Your task to perform on an android device: Search for pizza restaurants on Maps Image 0: 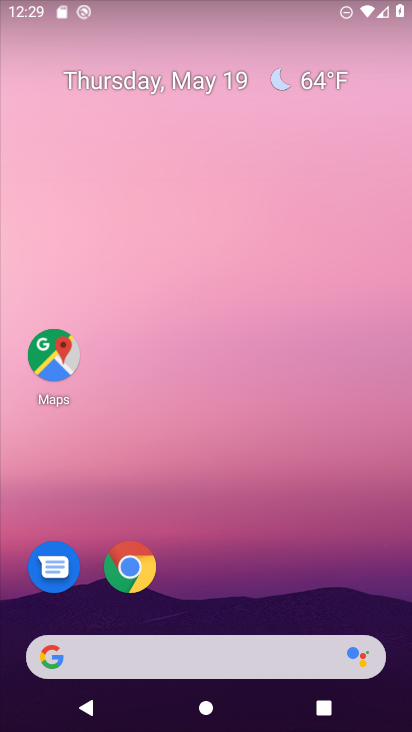
Step 0: click (44, 360)
Your task to perform on an android device: Search for pizza restaurants on Maps Image 1: 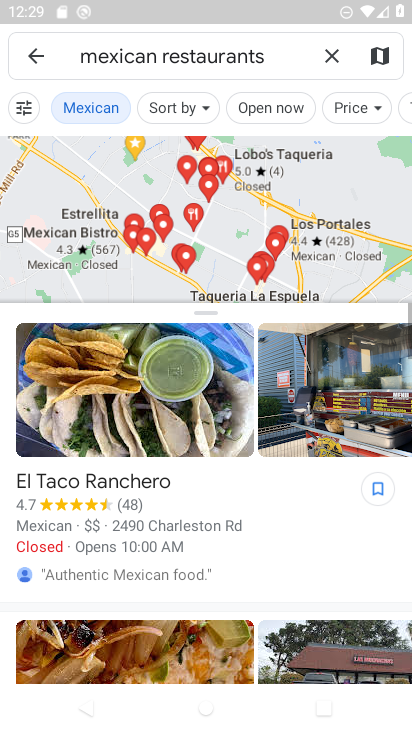
Step 1: click (329, 58)
Your task to perform on an android device: Search for pizza restaurants on Maps Image 2: 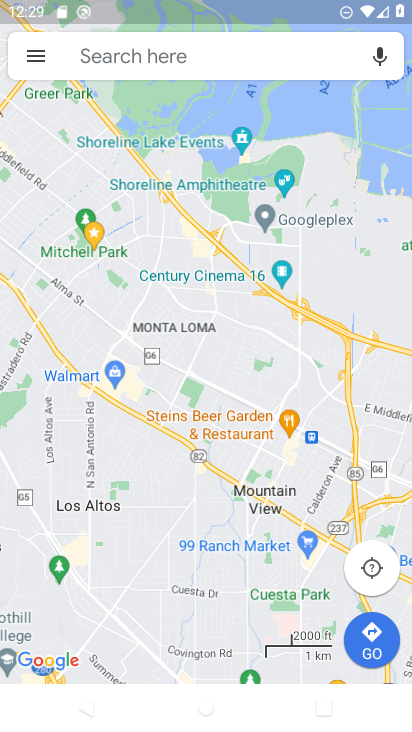
Step 2: click (240, 58)
Your task to perform on an android device: Search for pizza restaurants on Maps Image 3: 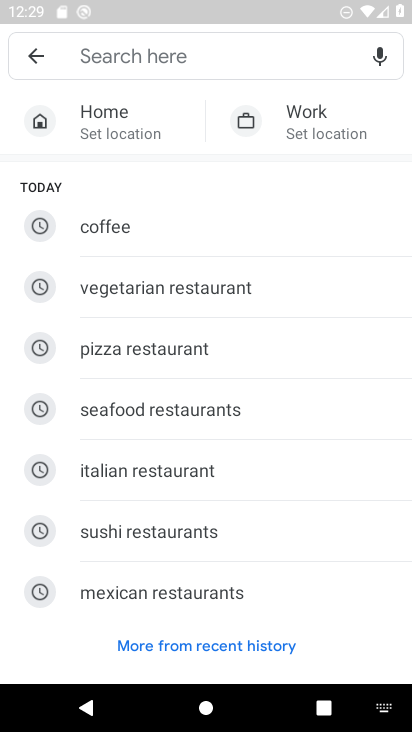
Step 3: click (133, 349)
Your task to perform on an android device: Search for pizza restaurants on Maps Image 4: 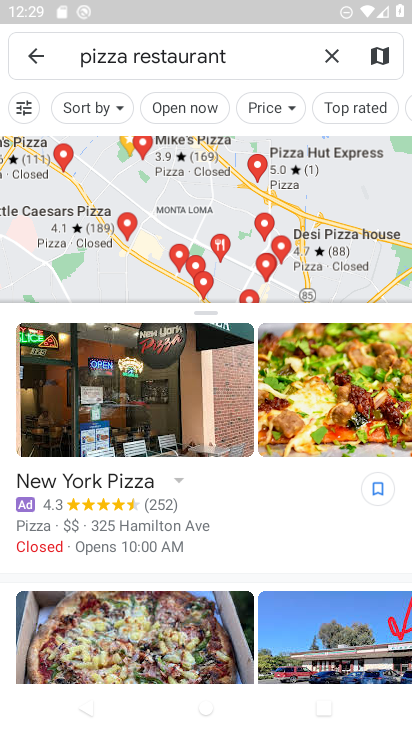
Step 4: task complete